Your task to perform on an android device: turn off notifications settings in the gmail app Image 0: 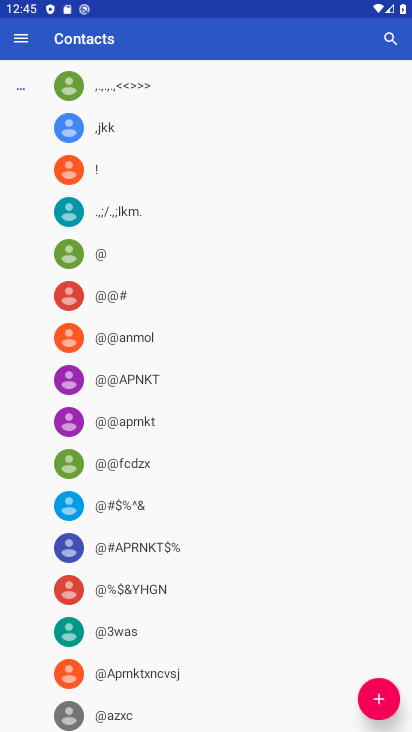
Step 0: press home button
Your task to perform on an android device: turn off notifications settings in the gmail app Image 1: 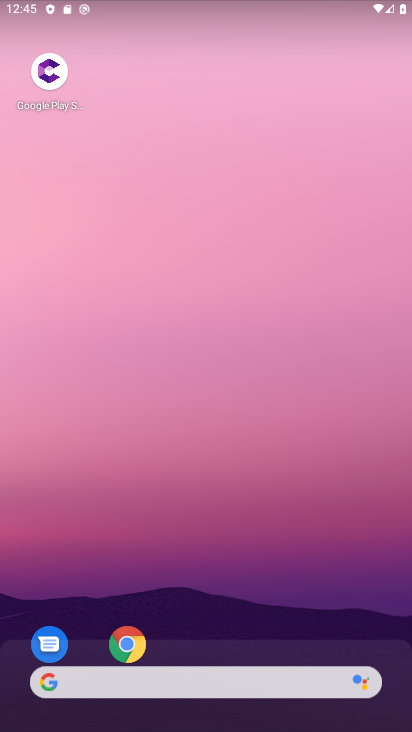
Step 1: drag from (176, 631) to (149, 214)
Your task to perform on an android device: turn off notifications settings in the gmail app Image 2: 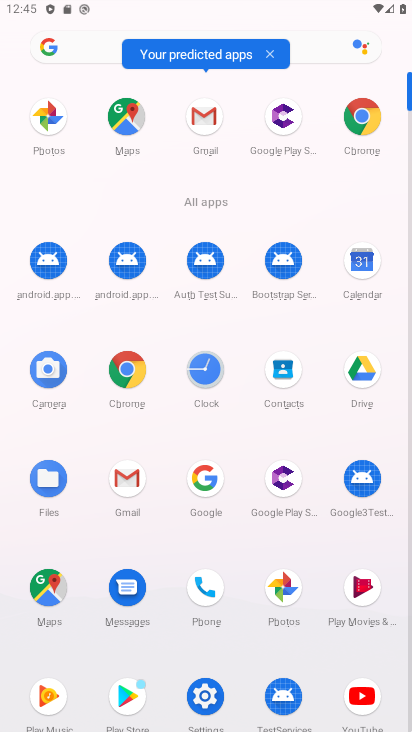
Step 2: click (209, 125)
Your task to perform on an android device: turn off notifications settings in the gmail app Image 3: 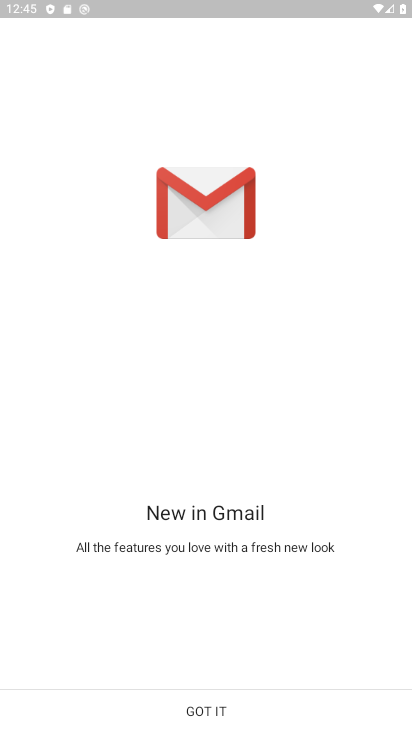
Step 3: click (205, 698)
Your task to perform on an android device: turn off notifications settings in the gmail app Image 4: 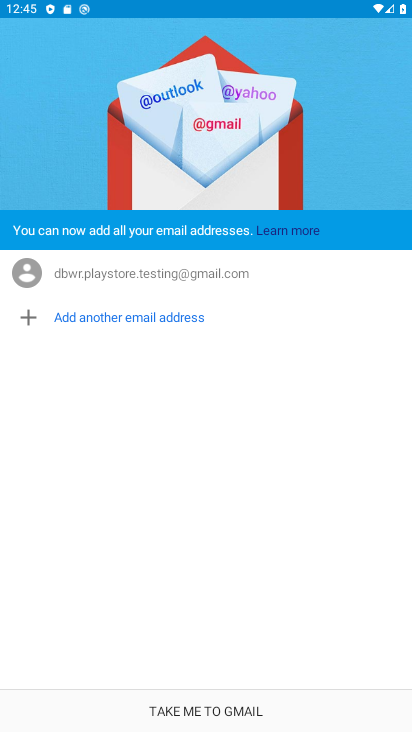
Step 4: click (227, 706)
Your task to perform on an android device: turn off notifications settings in the gmail app Image 5: 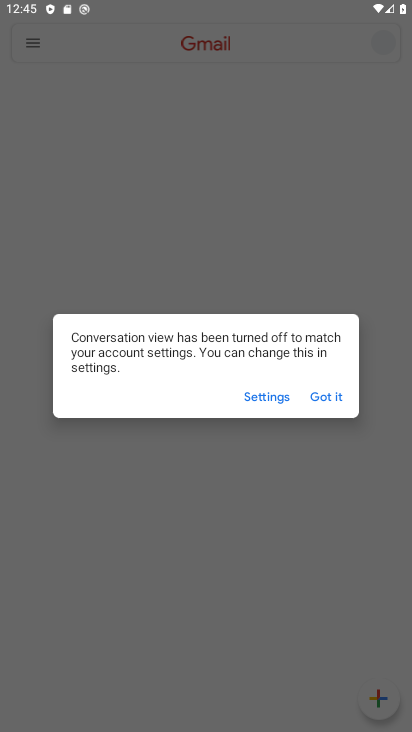
Step 5: click (320, 403)
Your task to perform on an android device: turn off notifications settings in the gmail app Image 6: 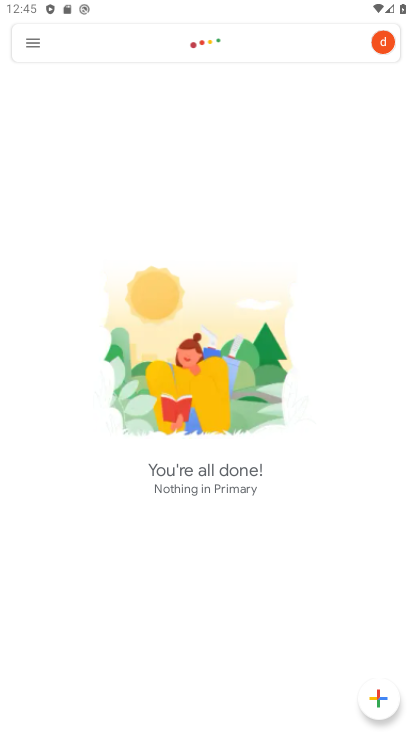
Step 6: click (33, 45)
Your task to perform on an android device: turn off notifications settings in the gmail app Image 7: 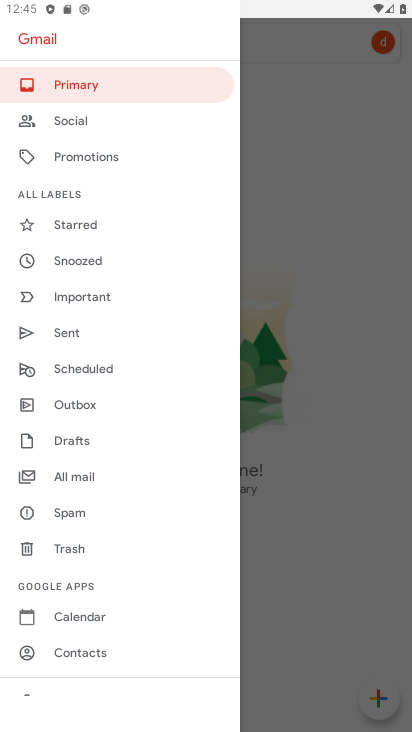
Step 7: drag from (118, 628) to (230, 311)
Your task to perform on an android device: turn off notifications settings in the gmail app Image 8: 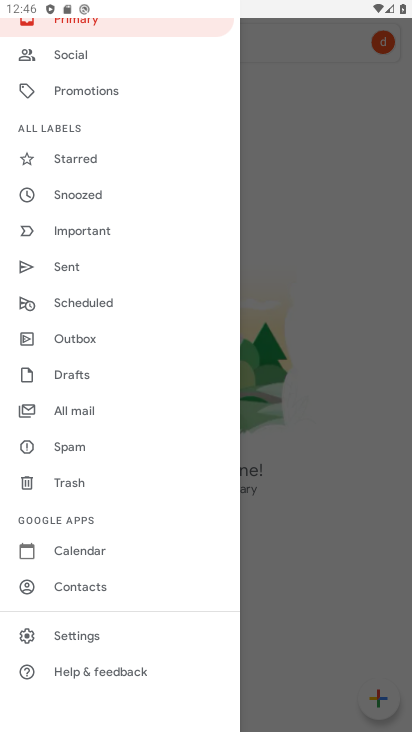
Step 8: click (60, 639)
Your task to perform on an android device: turn off notifications settings in the gmail app Image 9: 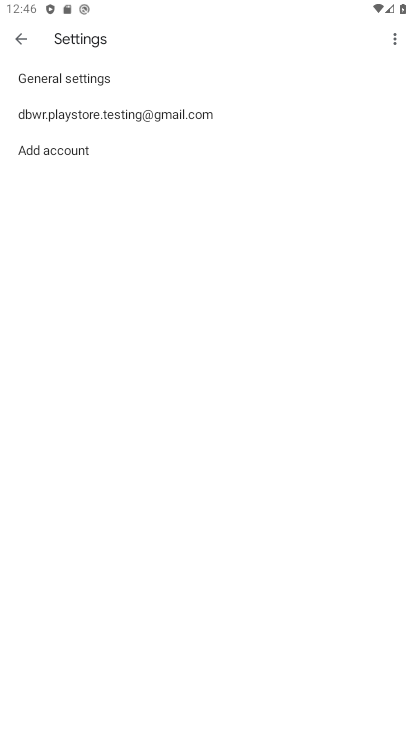
Step 9: click (144, 116)
Your task to perform on an android device: turn off notifications settings in the gmail app Image 10: 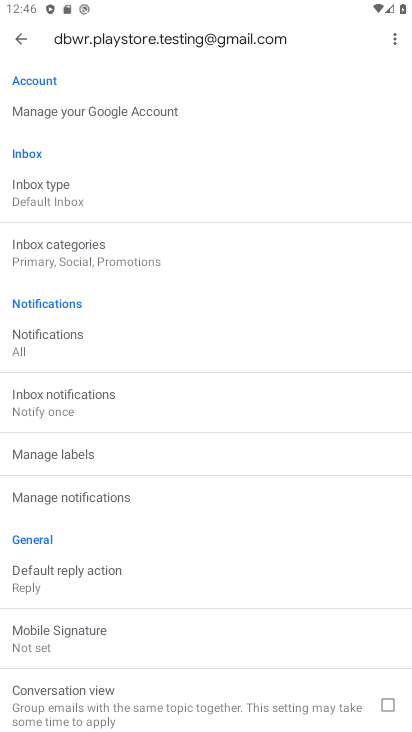
Step 10: click (94, 495)
Your task to perform on an android device: turn off notifications settings in the gmail app Image 11: 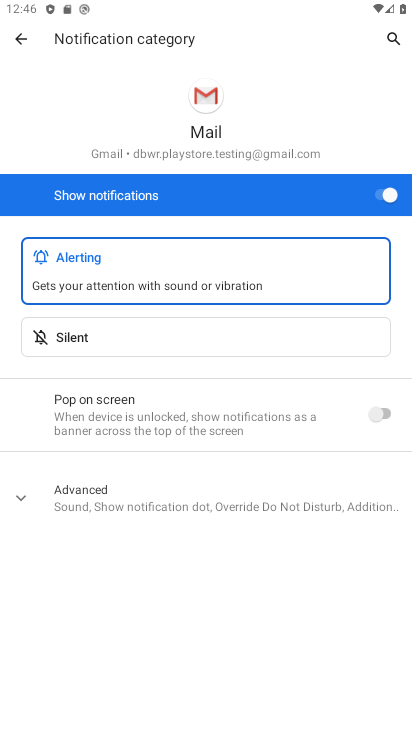
Step 11: click (383, 196)
Your task to perform on an android device: turn off notifications settings in the gmail app Image 12: 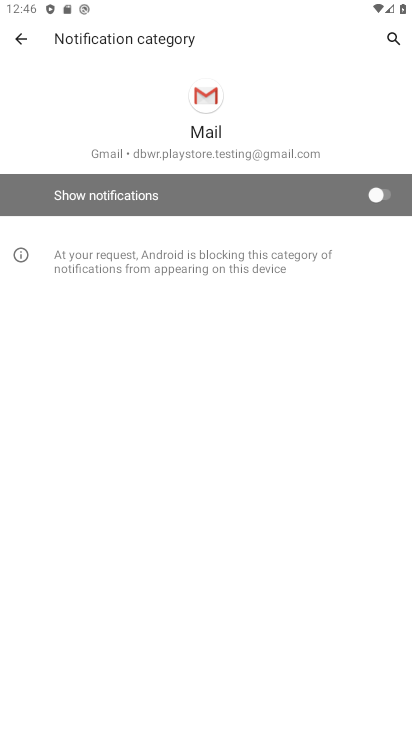
Step 12: task complete